Your task to perform on an android device: create a new album in the google photos Image 0: 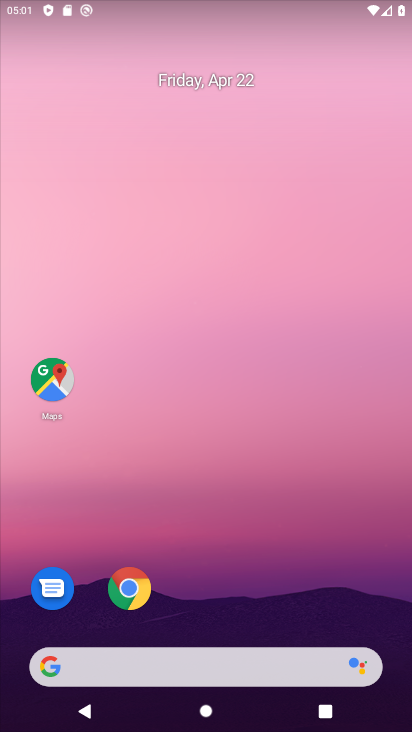
Step 0: drag from (296, 581) to (274, 115)
Your task to perform on an android device: create a new album in the google photos Image 1: 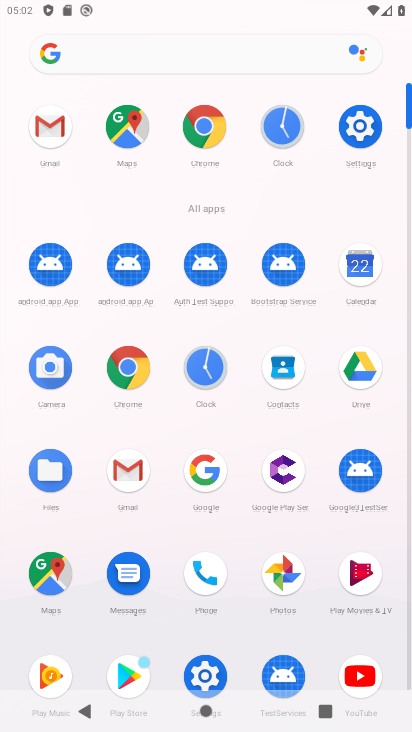
Step 1: click (285, 579)
Your task to perform on an android device: create a new album in the google photos Image 2: 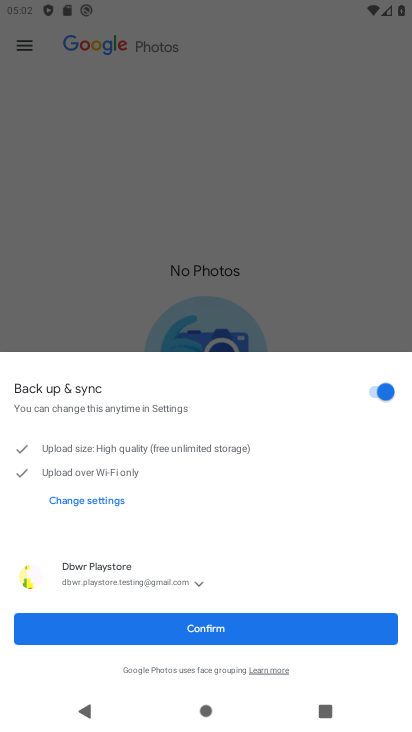
Step 2: click (287, 629)
Your task to perform on an android device: create a new album in the google photos Image 3: 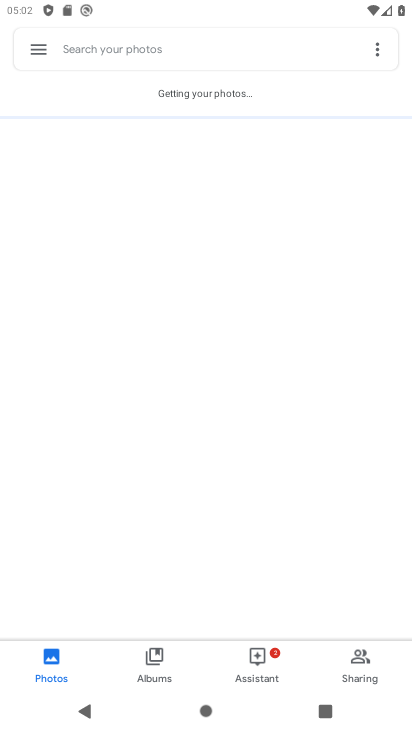
Step 3: click (378, 46)
Your task to perform on an android device: create a new album in the google photos Image 4: 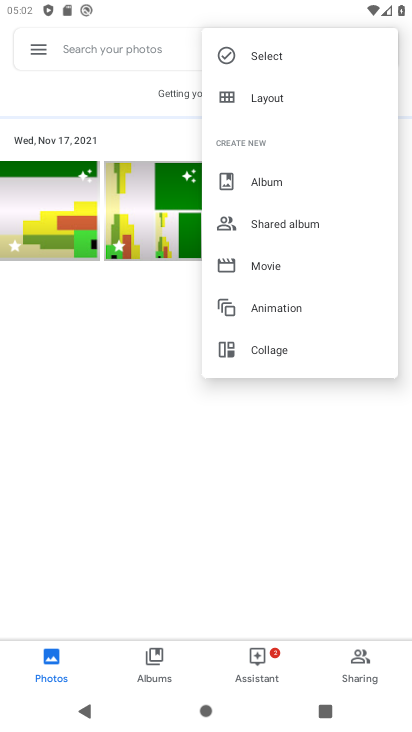
Step 4: click (272, 184)
Your task to perform on an android device: create a new album in the google photos Image 5: 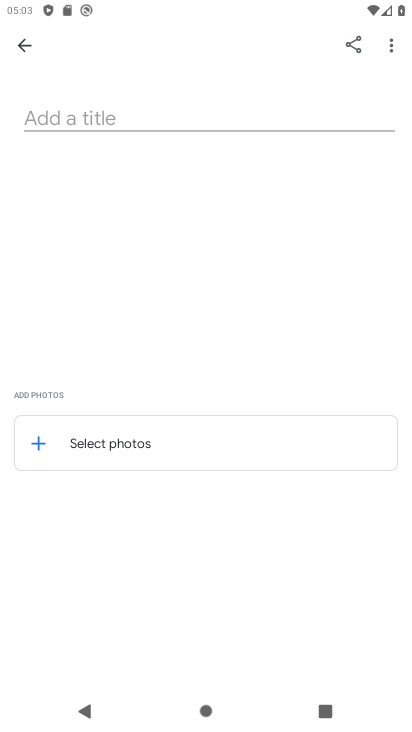
Step 5: click (101, 112)
Your task to perform on an android device: create a new album in the google photos Image 6: 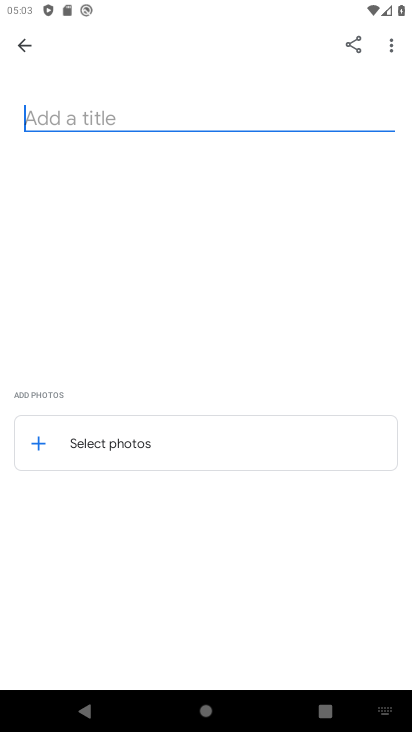
Step 6: type "uyfv"
Your task to perform on an android device: create a new album in the google photos Image 7: 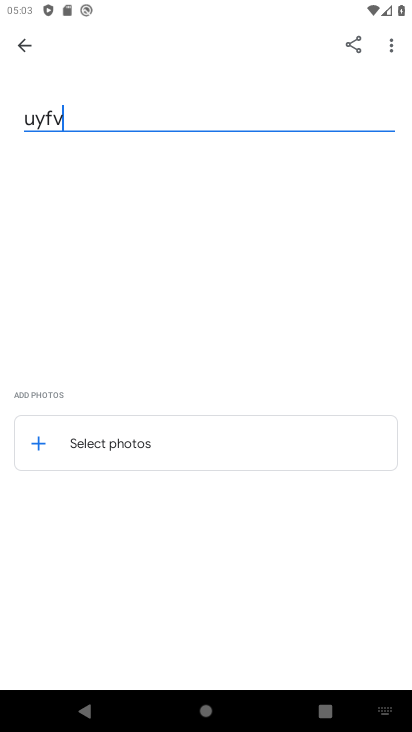
Step 7: click (98, 438)
Your task to perform on an android device: create a new album in the google photos Image 8: 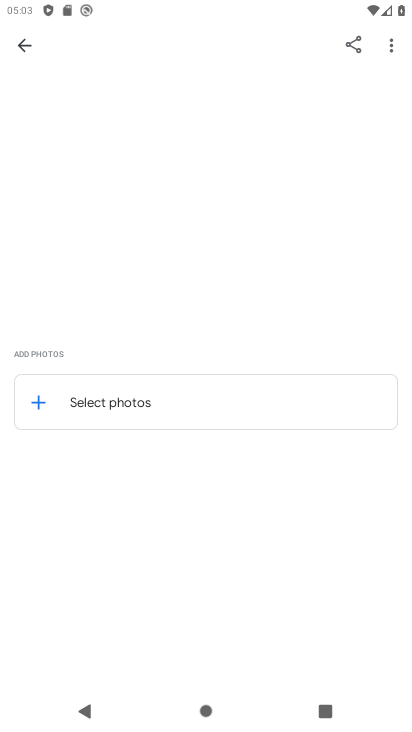
Step 8: click (38, 405)
Your task to perform on an android device: create a new album in the google photos Image 9: 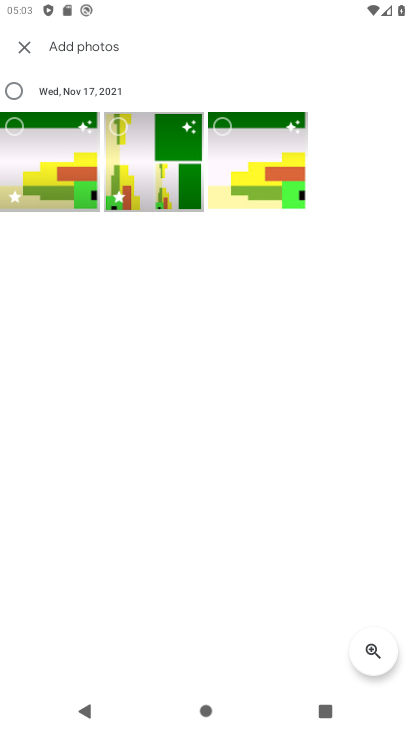
Step 9: click (16, 126)
Your task to perform on an android device: create a new album in the google photos Image 10: 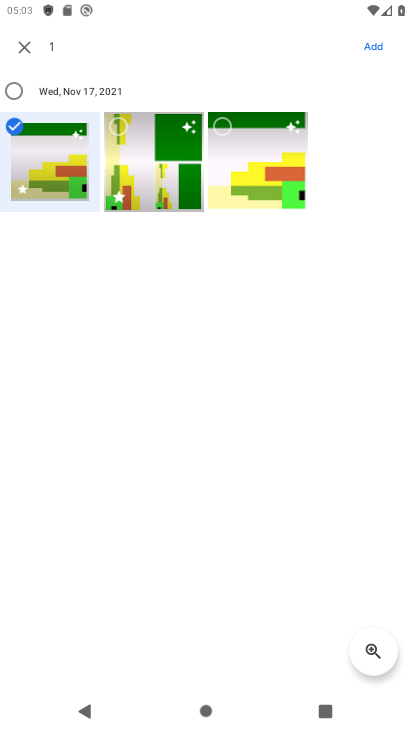
Step 10: click (121, 127)
Your task to perform on an android device: create a new album in the google photos Image 11: 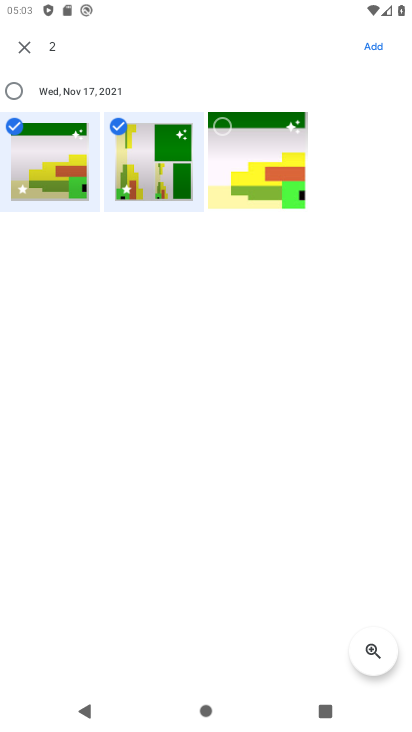
Step 11: click (377, 48)
Your task to perform on an android device: create a new album in the google photos Image 12: 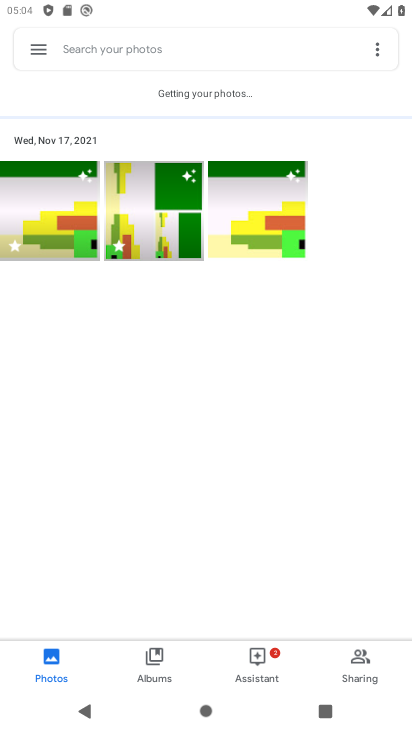
Step 12: task complete